Your task to perform on an android device: Go to CNN.com Image 0: 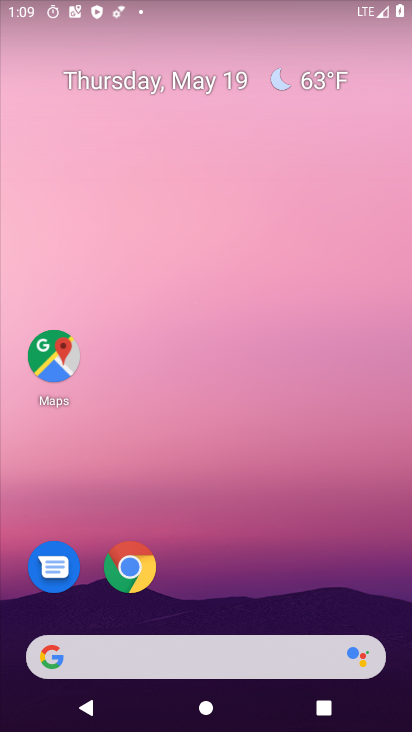
Step 0: press home button
Your task to perform on an android device: Go to CNN.com Image 1: 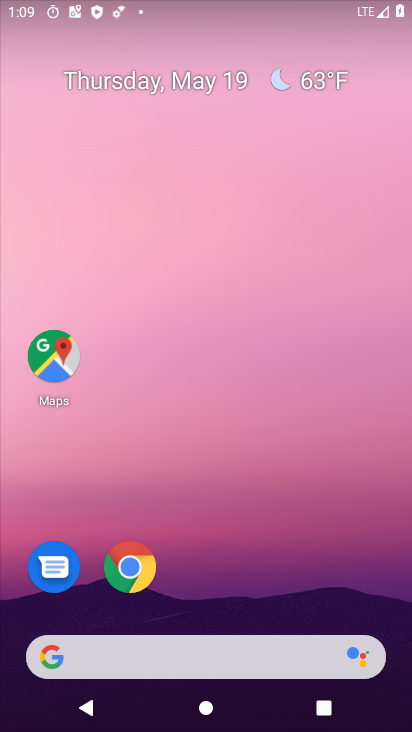
Step 1: click (137, 573)
Your task to perform on an android device: Go to CNN.com Image 2: 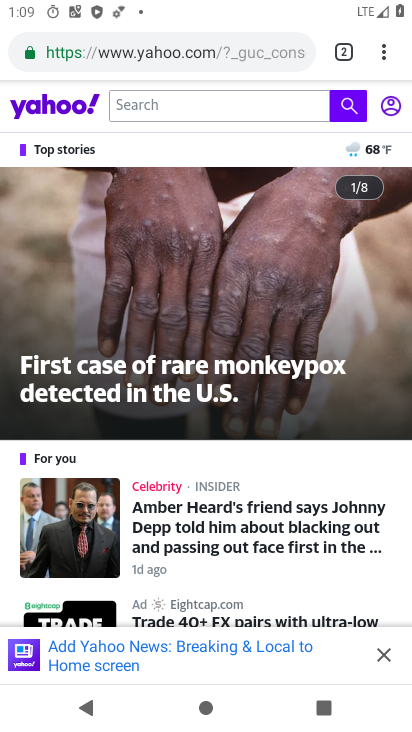
Step 2: drag from (387, 54) to (240, 111)
Your task to perform on an android device: Go to CNN.com Image 3: 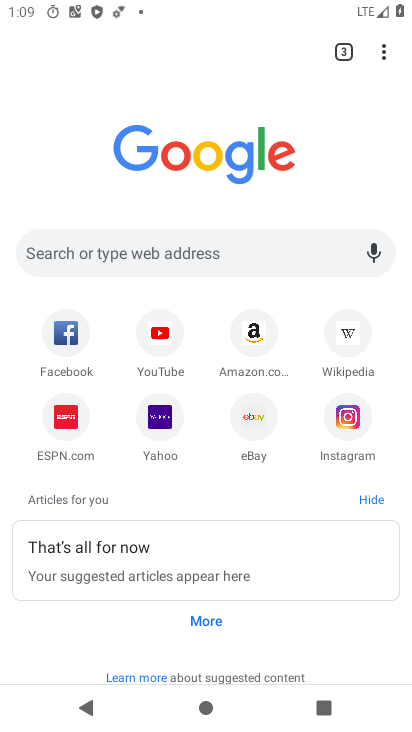
Step 3: click (176, 246)
Your task to perform on an android device: Go to CNN.com Image 4: 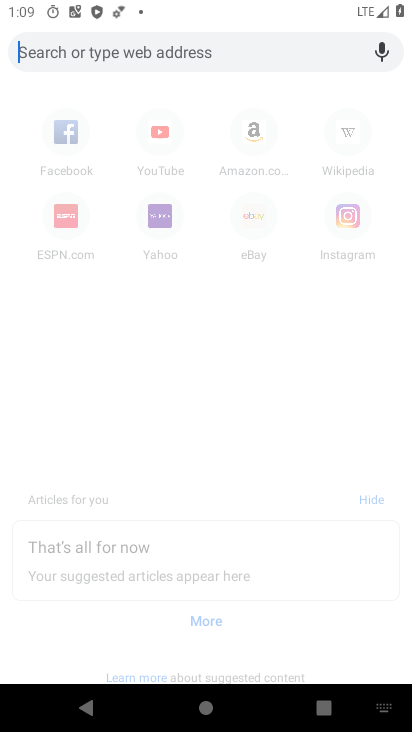
Step 4: type "cnn.com"
Your task to perform on an android device: Go to CNN.com Image 5: 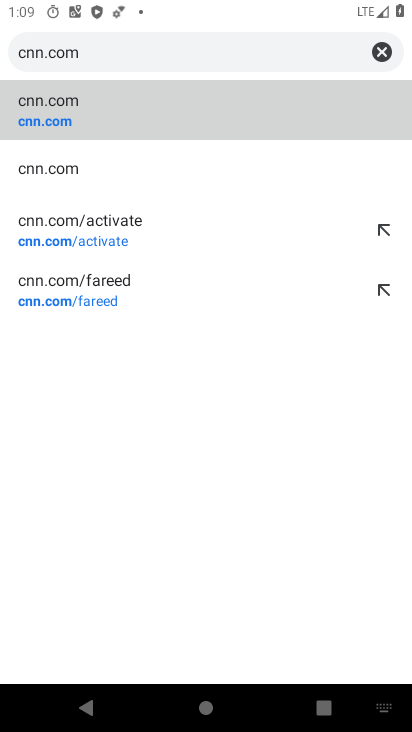
Step 5: click (81, 118)
Your task to perform on an android device: Go to CNN.com Image 6: 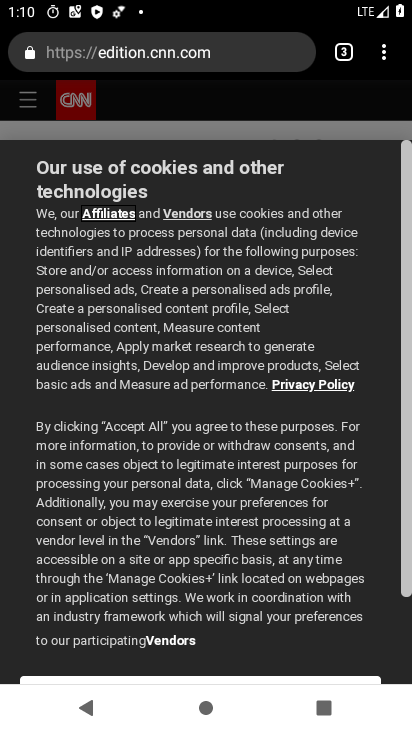
Step 6: drag from (219, 609) to (374, 199)
Your task to perform on an android device: Go to CNN.com Image 7: 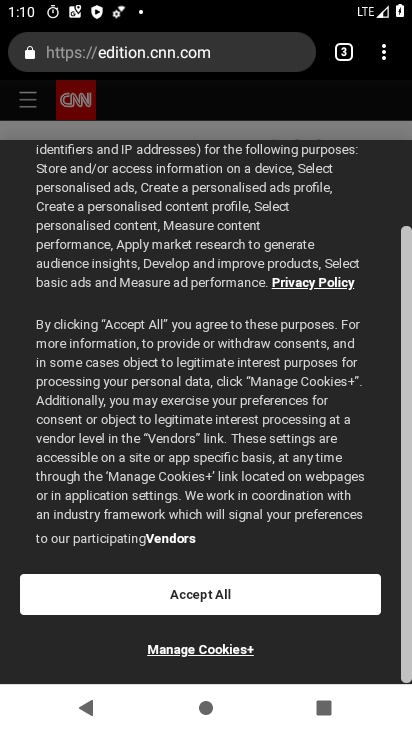
Step 7: click (197, 597)
Your task to perform on an android device: Go to CNN.com Image 8: 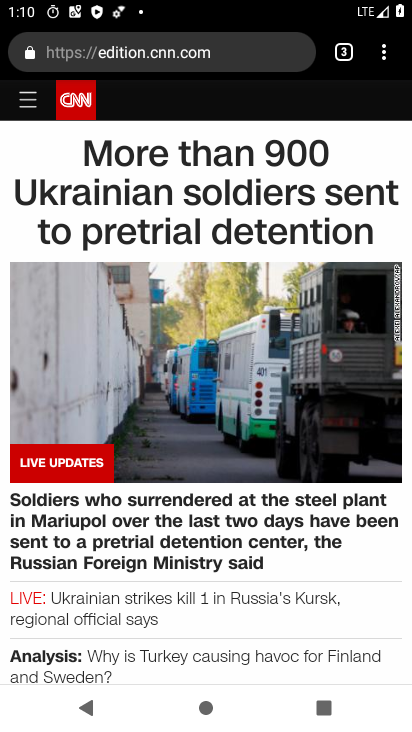
Step 8: task complete